Your task to perform on an android device: create a new album in the google photos Image 0: 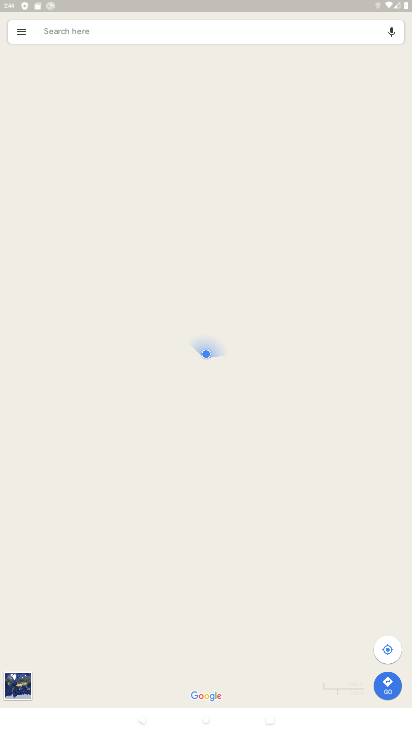
Step 0: press home button
Your task to perform on an android device: create a new album in the google photos Image 1: 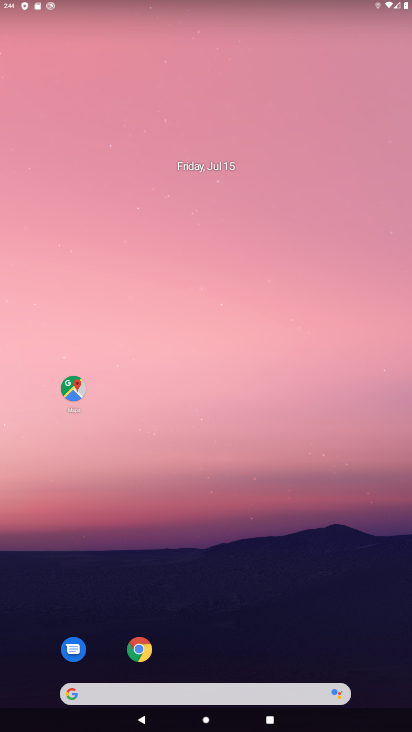
Step 1: drag from (238, 628) to (195, 82)
Your task to perform on an android device: create a new album in the google photos Image 2: 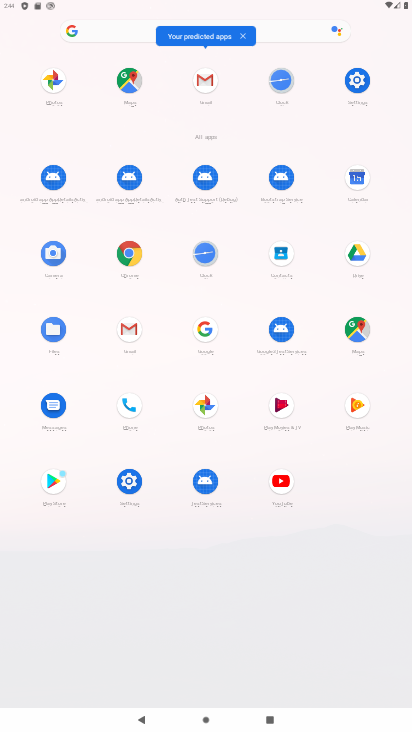
Step 2: click (49, 84)
Your task to perform on an android device: create a new album in the google photos Image 3: 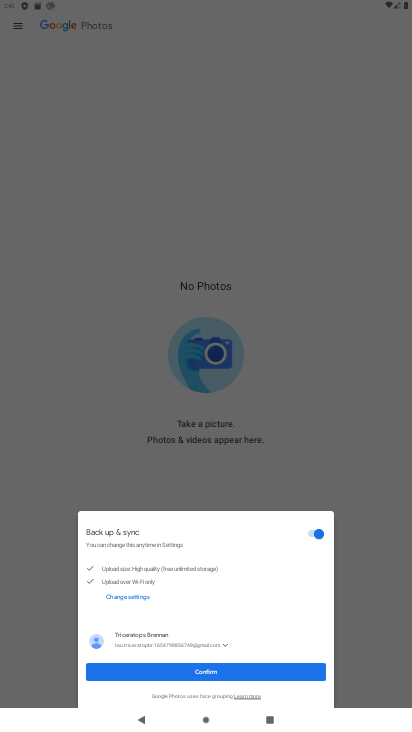
Step 3: click (222, 670)
Your task to perform on an android device: create a new album in the google photos Image 4: 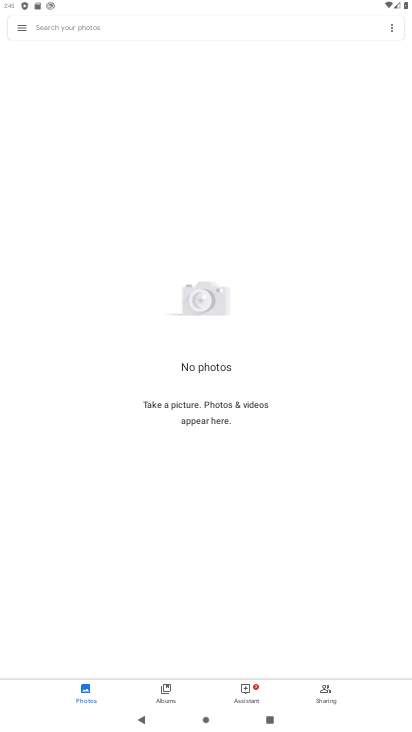
Step 4: click (250, 695)
Your task to perform on an android device: create a new album in the google photos Image 5: 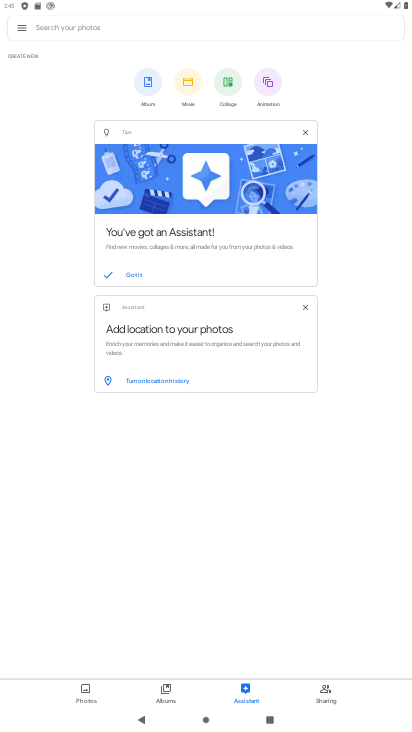
Step 5: click (147, 82)
Your task to perform on an android device: create a new album in the google photos Image 6: 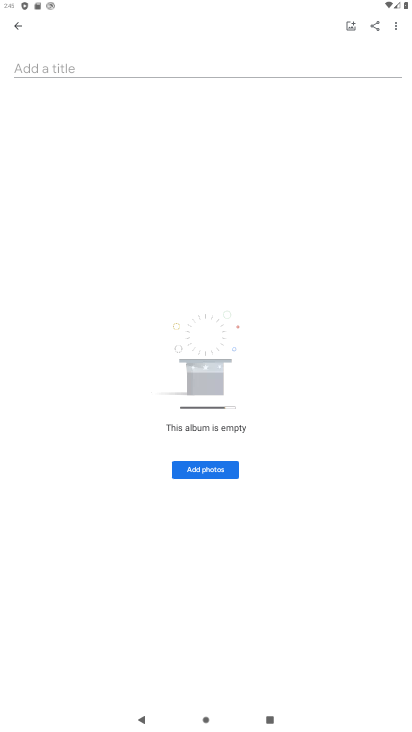
Step 6: click (211, 465)
Your task to perform on an android device: create a new album in the google photos Image 7: 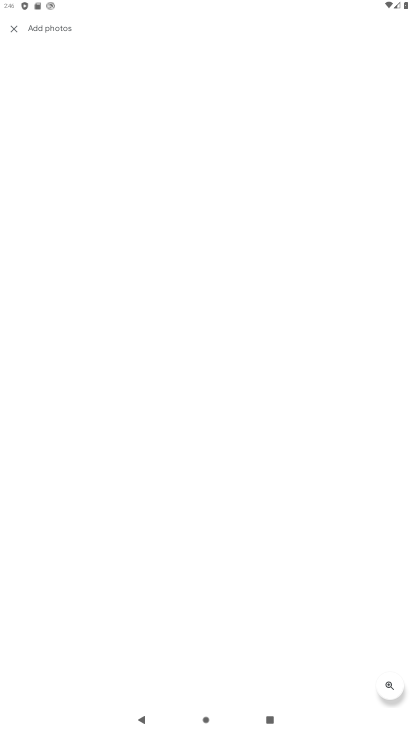
Step 7: task complete